Your task to perform on an android device: clear all cookies in the chrome app Image 0: 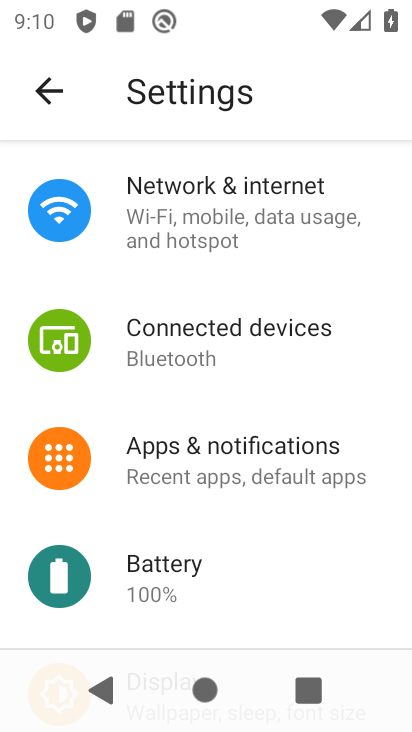
Step 0: press home button
Your task to perform on an android device: clear all cookies in the chrome app Image 1: 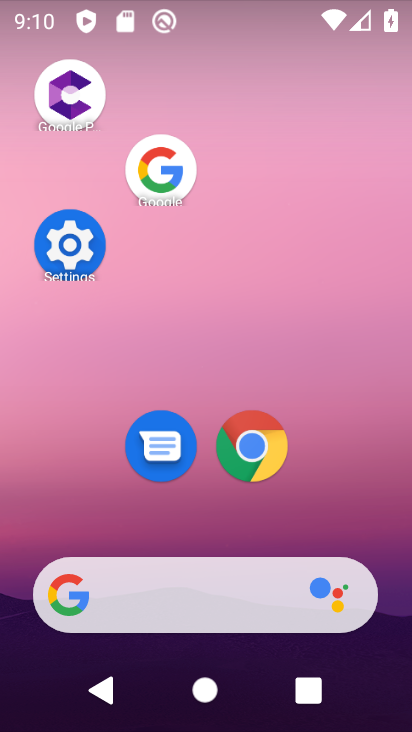
Step 1: click (240, 444)
Your task to perform on an android device: clear all cookies in the chrome app Image 2: 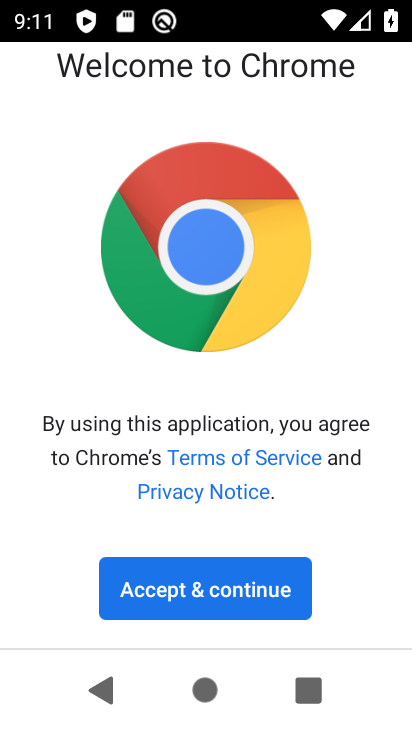
Step 2: click (222, 593)
Your task to perform on an android device: clear all cookies in the chrome app Image 3: 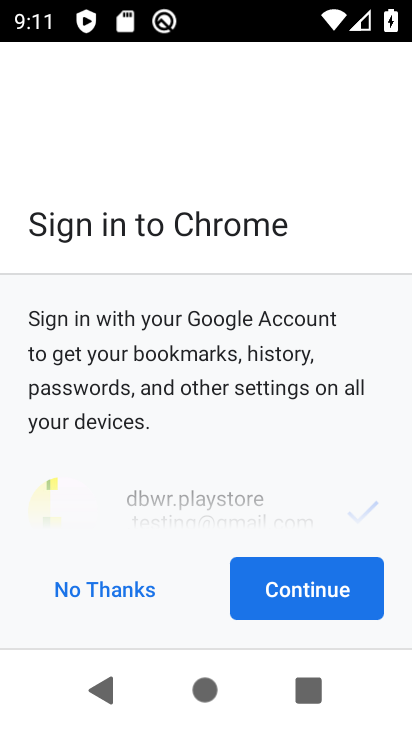
Step 3: click (293, 571)
Your task to perform on an android device: clear all cookies in the chrome app Image 4: 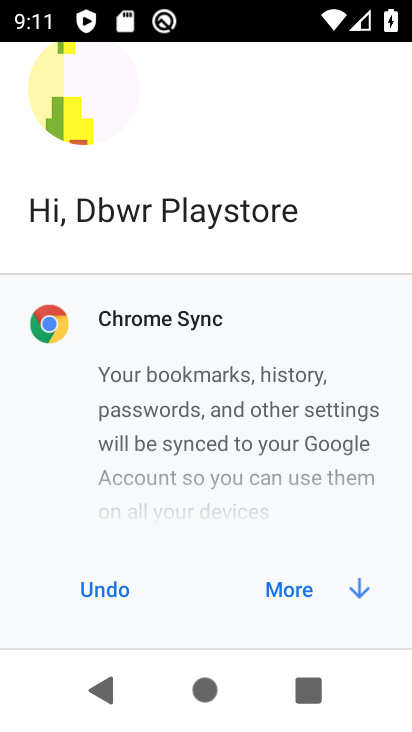
Step 4: click (291, 570)
Your task to perform on an android device: clear all cookies in the chrome app Image 5: 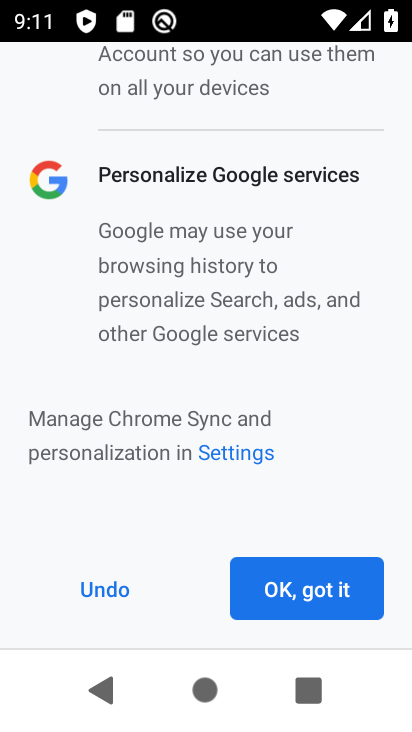
Step 5: click (291, 570)
Your task to perform on an android device: clear all cookies in the chrome app Image 6: 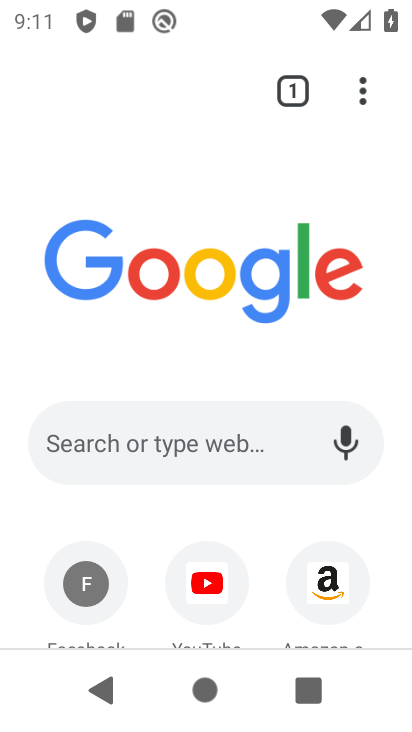
Step 6: click (362, 100)
Your task to perform on an android device: clear all cookies in the chrome app Image 7: 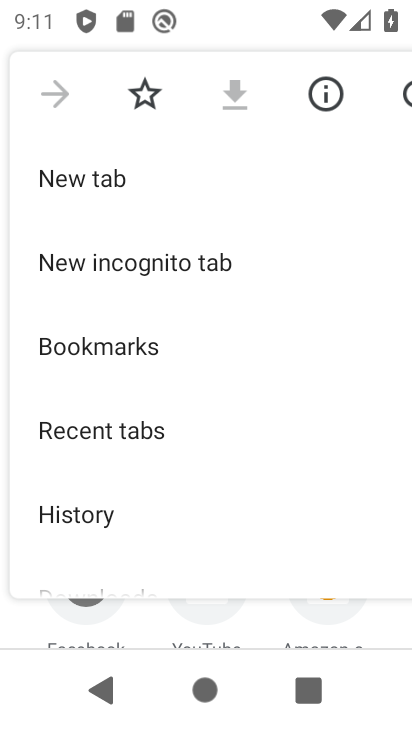
Step 7: drag from (265, 433) to (278, 81)
Your task to perform on an android device: clear all cookies in the chrome app Image 8: 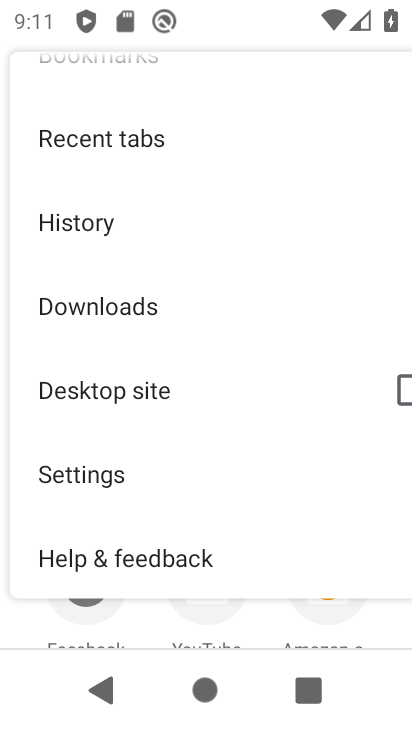
Step 8: click (222, 471)
Your task to perform on an android device: clear all cookies in the chrome app Image 9: 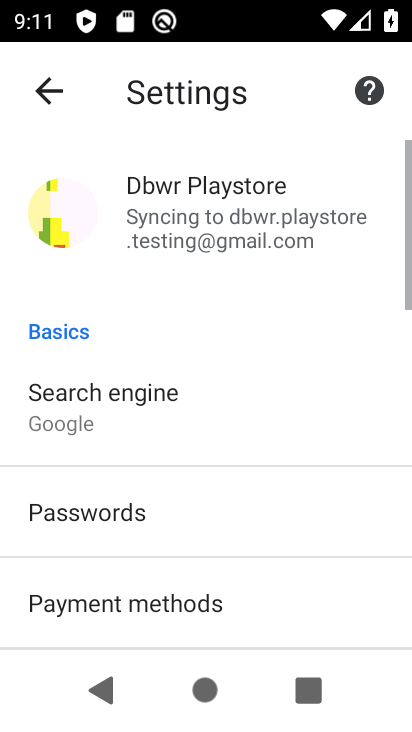
Step 9: drag from (223, 471) to (305, 24)
Your task to perform on an android device: clear all cookies in the chrome app Image 10: 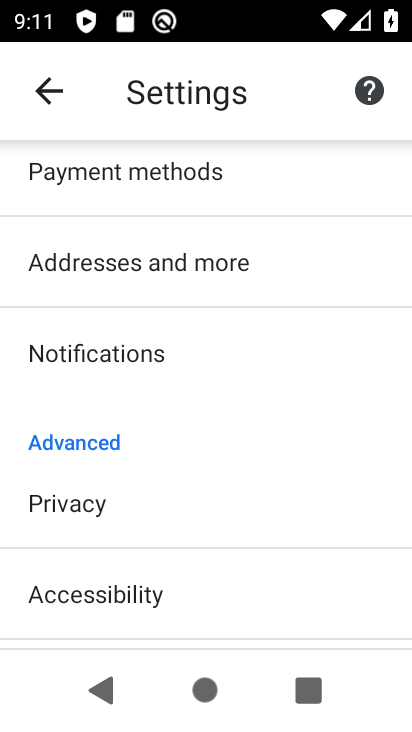
Step 10: click (104, 503)
Your task to perform on an android device: clear all cookies in the chrome app Image 11: 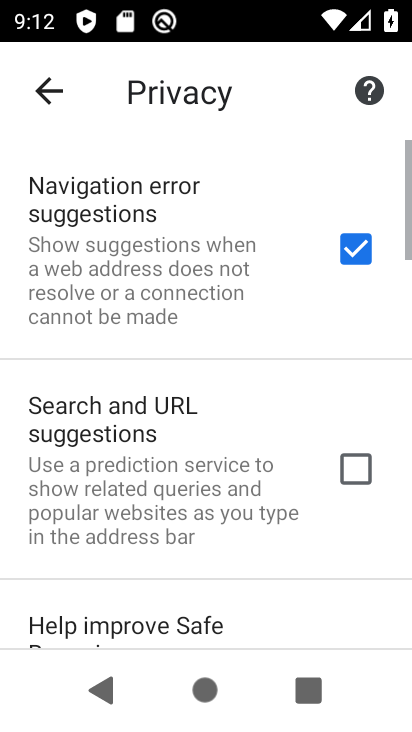
Step 11: drag from (188, 512) to (261, 58)
Your task to perform on an android device: clear all cookies in the chrome app Image 12: 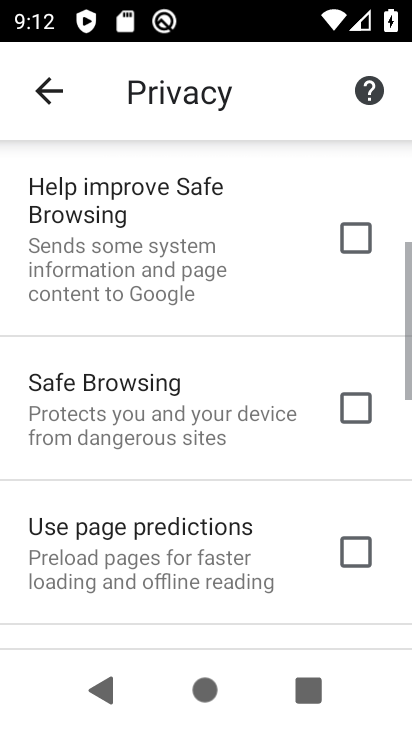
Step 12: drag from (276, 493) to (318, 16)
Your task to perform on an android device: clear all cookies in the chrome app Image 13: 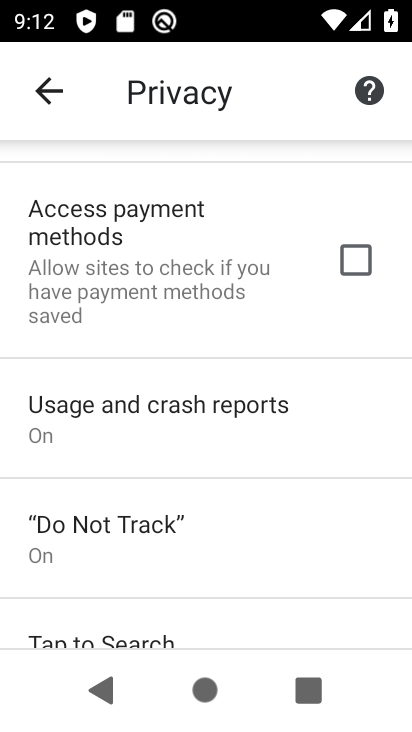
Step 13: drag from (204, 508) to (255, 92)
Your task to perform on an android device: clear all cookies in the chrome app Image 14: 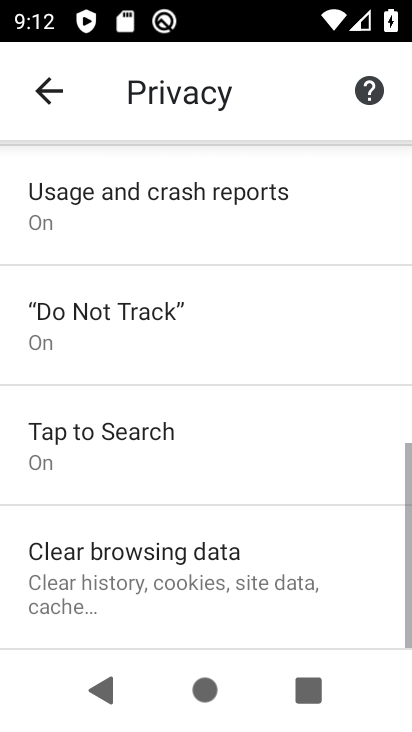
Step 14: click (186, 541)
Your task to perform on an android device: clear all cookies in the chrome app Image 15: 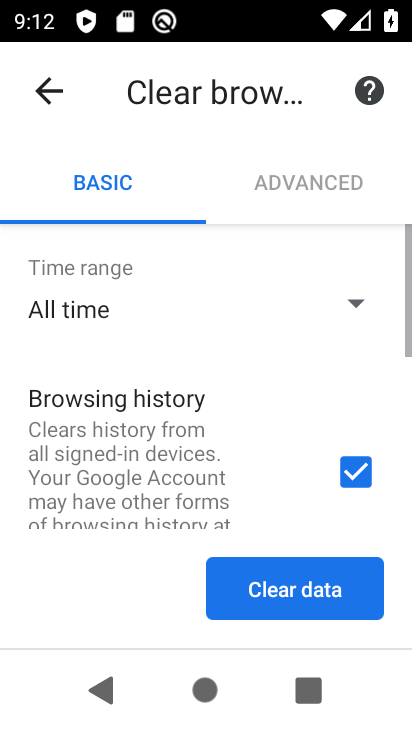
Step 15: drag from (251, 500) to (289, 224)
Your task to perform on an android device: clear all cookies in the chrome app Image 16: 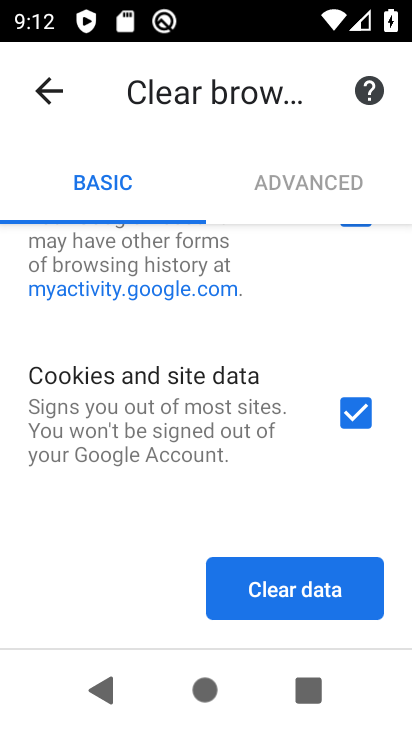
Step 16: click (322, 589)
Your task to perform on an android device: clear all cookies in the chrome app Image 17: 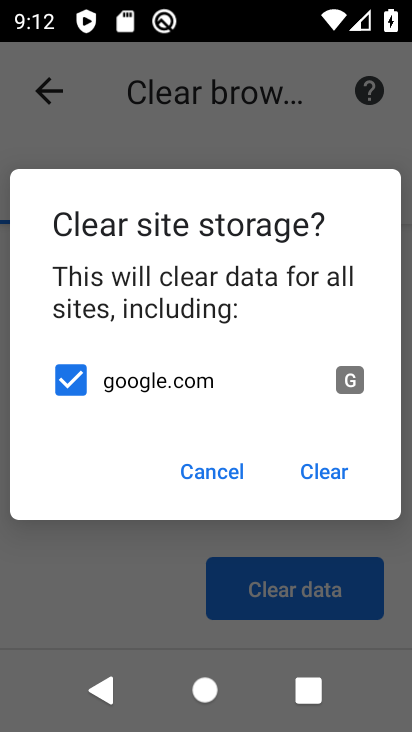
Step 17: click (320, 485)
Your task to perform on an android device: clear all cookies in the chrome app Image 18: 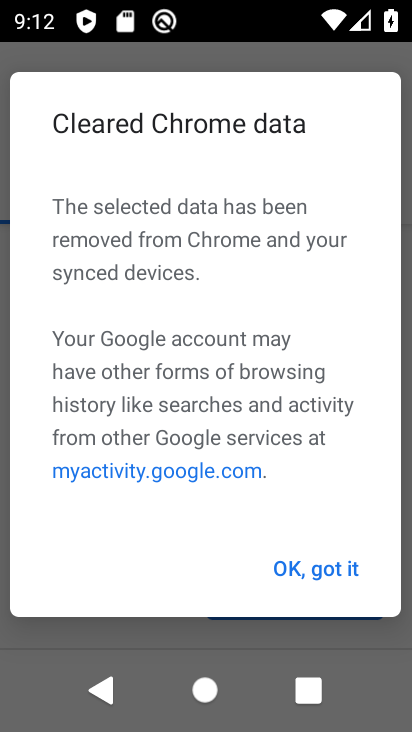
Step 18: click (338, 560)
Your task to perform on an android device: clear all cookies in the chrome app Image 19: 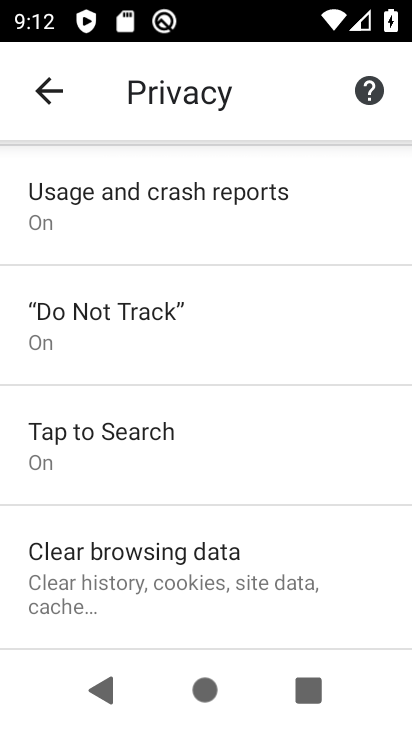
Step 19: task complete